Your task to perform on an android device: check storage Image 0: 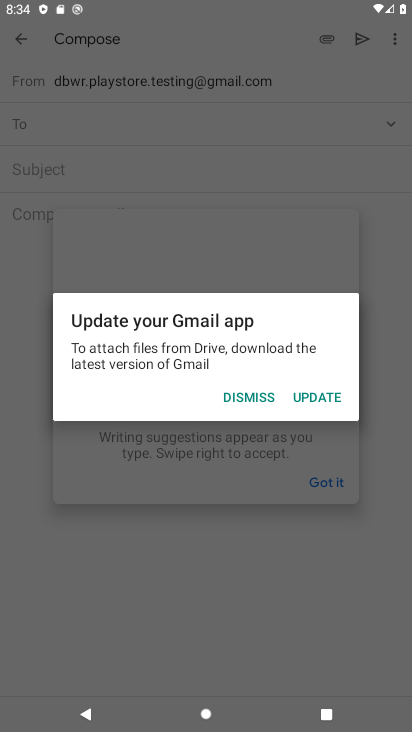
Step 0: press home button
Your task to perform on an android device: check storage Image 1: 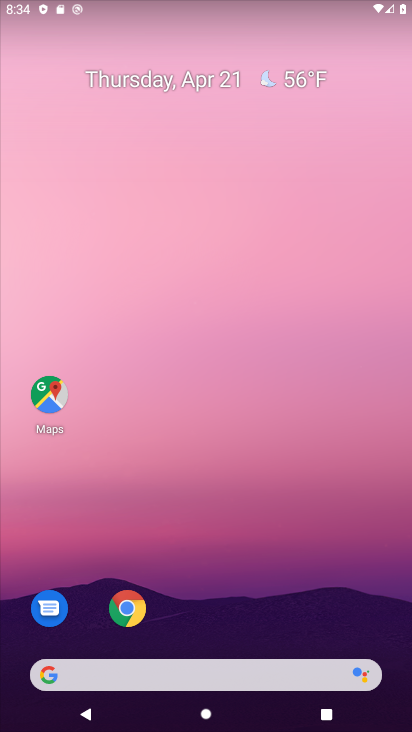
Step 1: drag from (319, 550) to (329, 120)
Your task to perform on an android device: check storage Image 2: 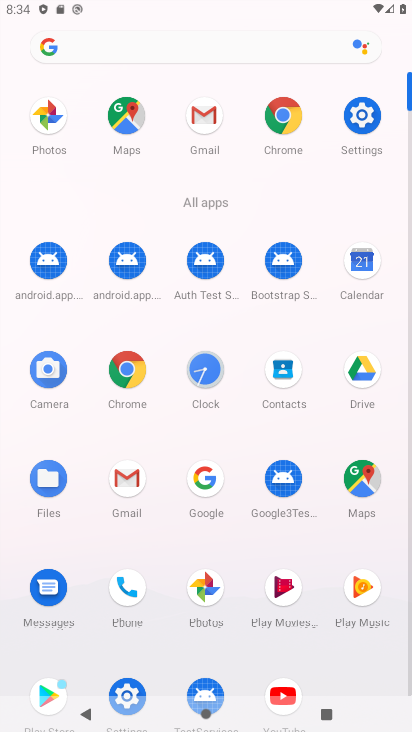
Step 2: click (369, 111)
Your task to perform on an android device: check storage Image 3: 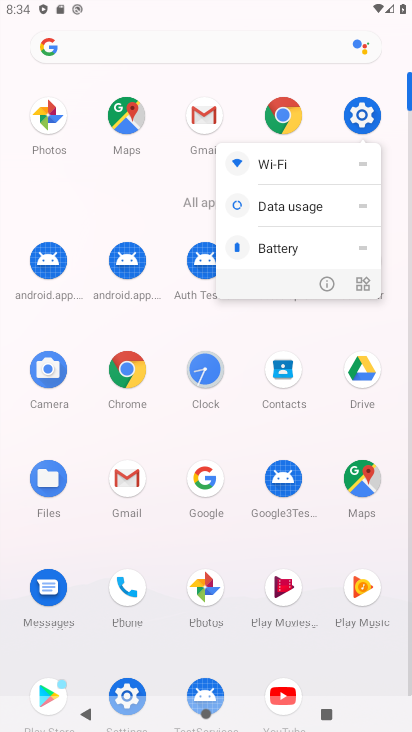
Step 3: click (366, 117)
Your task to perform on an android device: check storage Image 4: 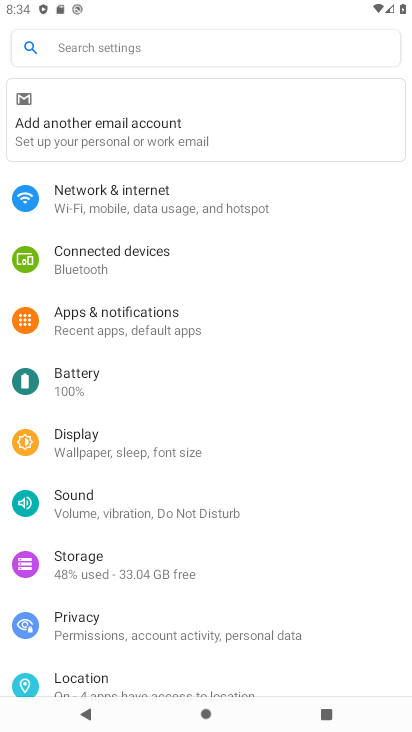
Step 4: click (150, 564)
Your task to perform on an android device: check storage Image 5: 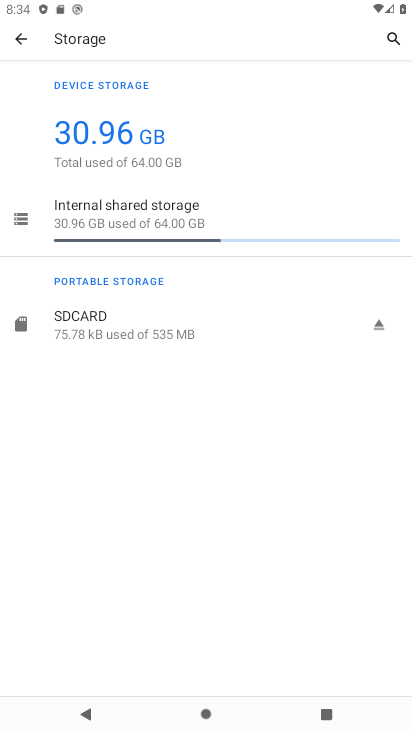
Step 5: task complete